Your task to perform on an android device: change text size in settings app Image 0: 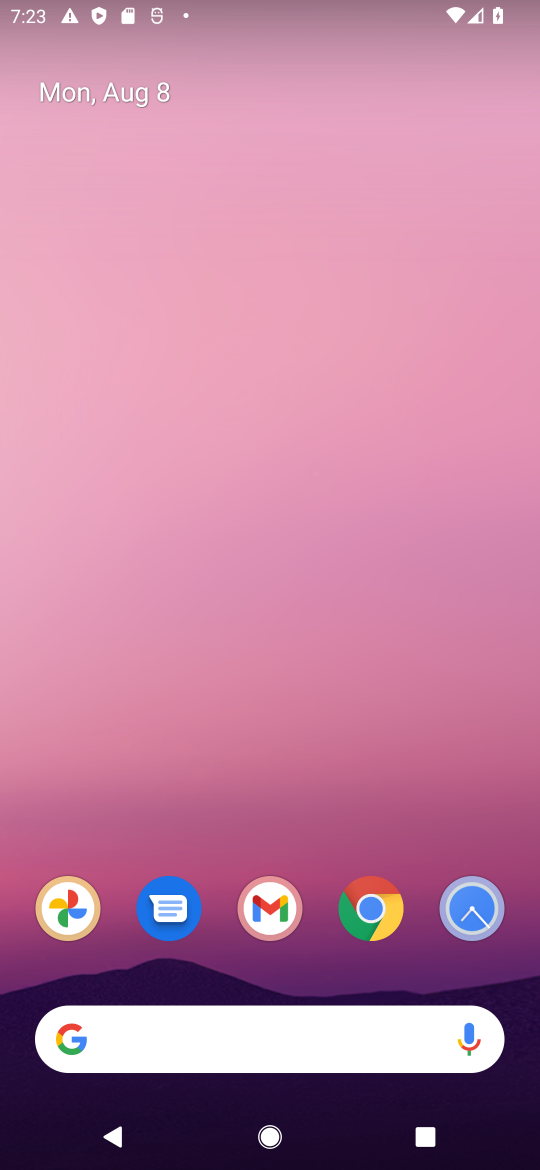
Step 0: drag from (229, 848) to (345, 143)
Your task to perform on an android device: change text size in settings app Image 1: 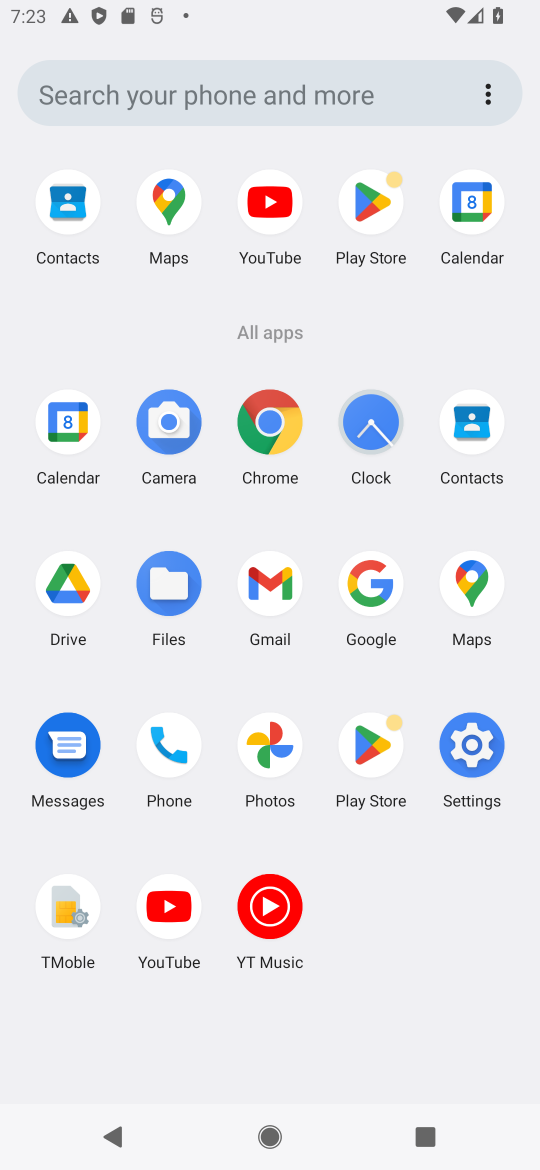
Step 1: click (471, 772)
Your task to perform on an android device: change text size in settings app Image 2: 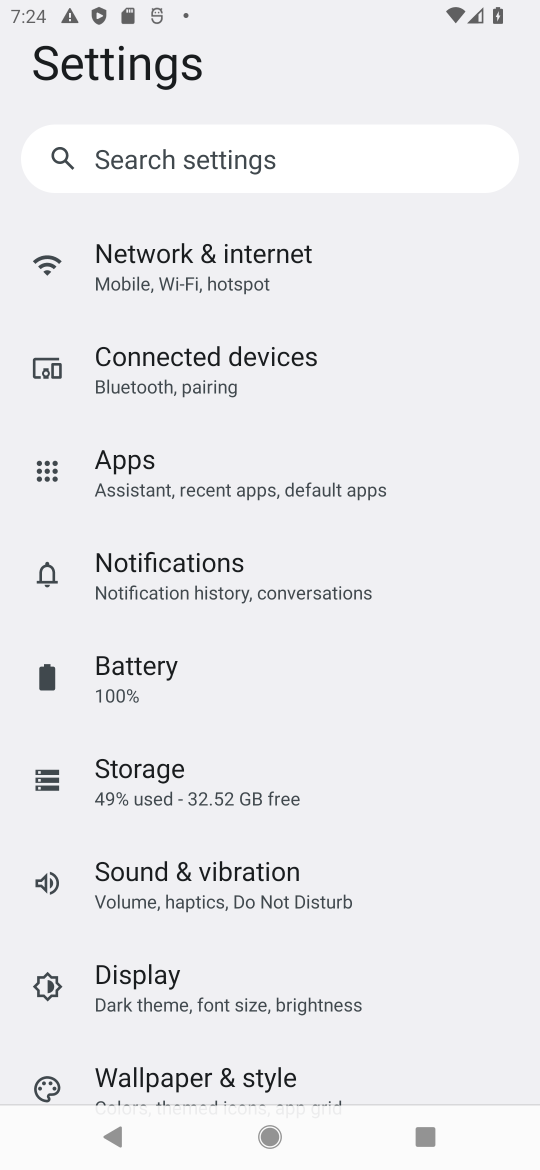
Step 2: click (185, 1006)
Your task to perform on an android device: change text size in settings app Image 3: 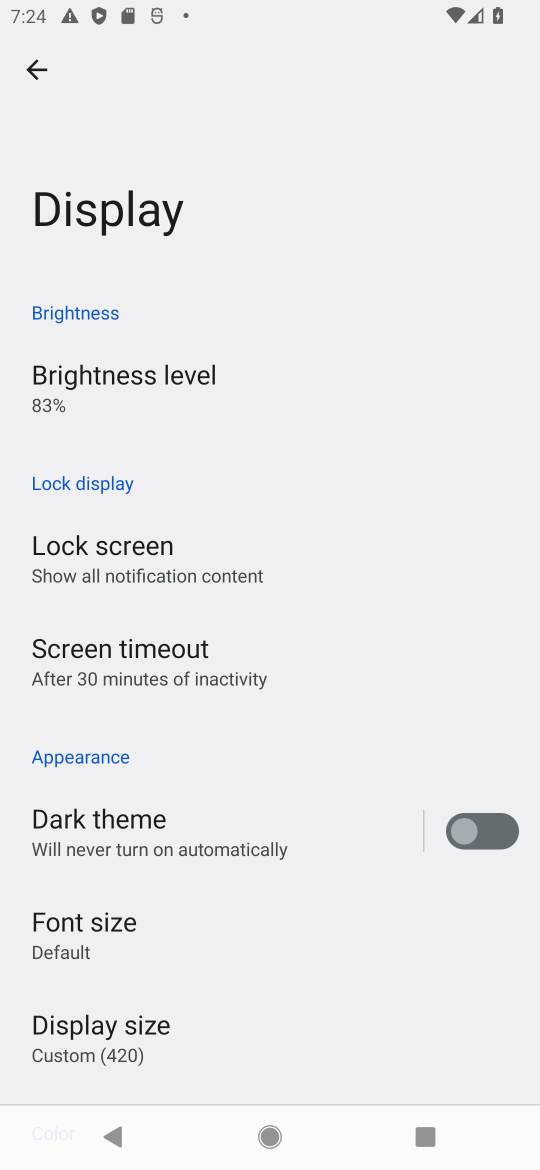
Step 3: click (97, 941)
Your task to perform on an android device: change text size in settings app Image 4: 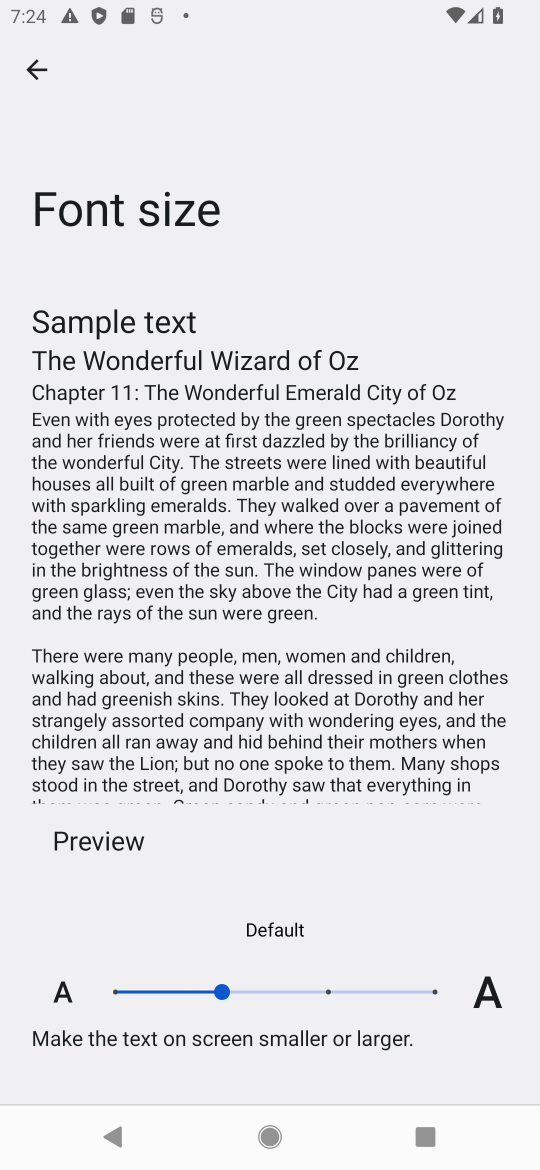
Step 4: click (114, 996)
Your task to perform on an android device: change text size in settings app Image 5: 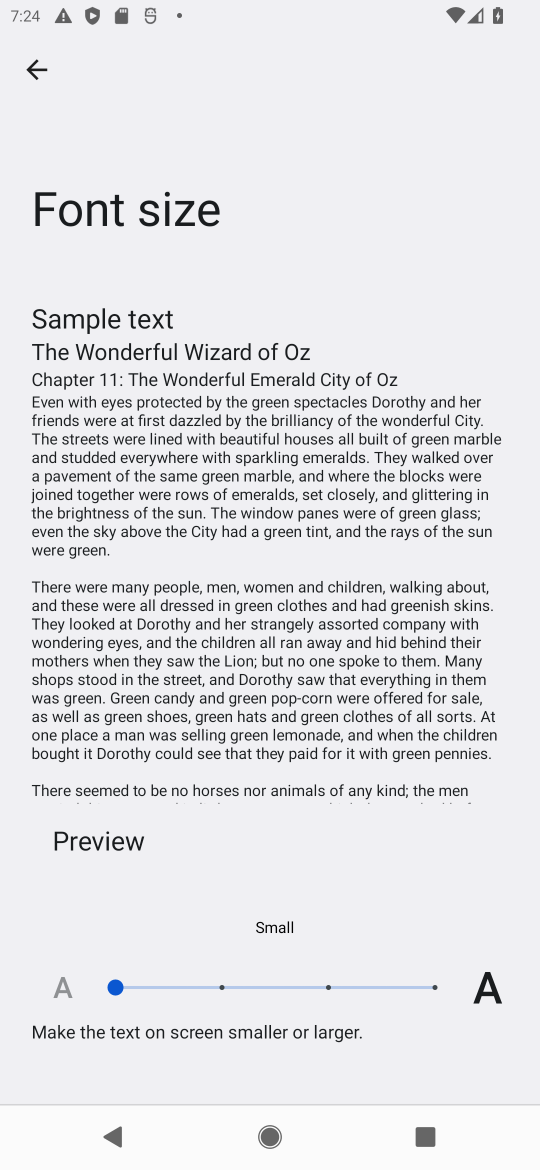
Step 5: task complete